Your task to perform on an android device: delete the emails in spam in the gmail app Image 0: 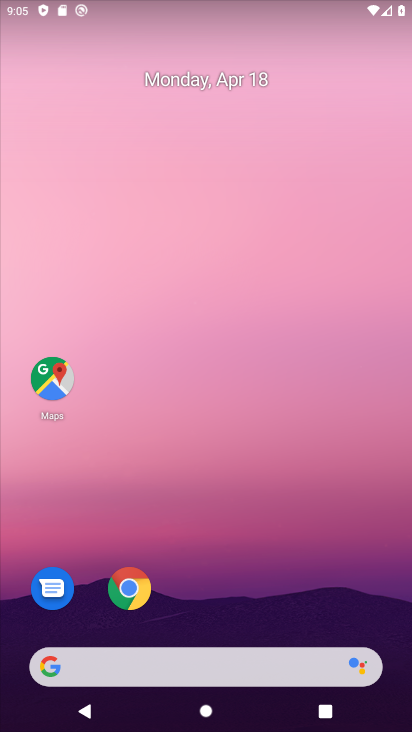
Step 0: drag from (276, 594) to (220, 61)
Your task to perform on an android device: delete the emails in spam in the gmail app Image 1: 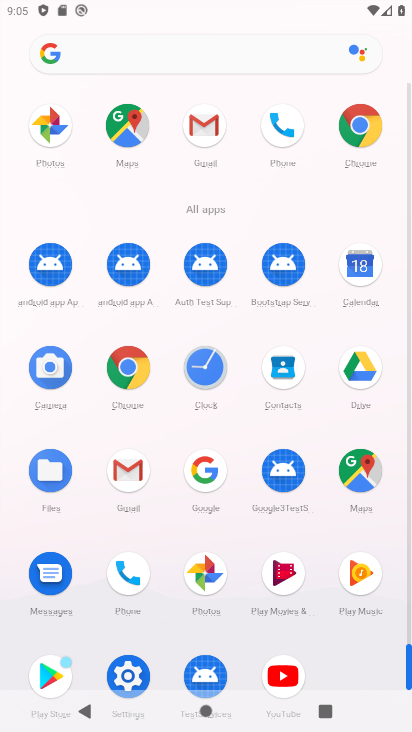
Step 1: click (125, 471)
Your task to perform on an android device: delete the emails in spam in the gmail app Image 2: 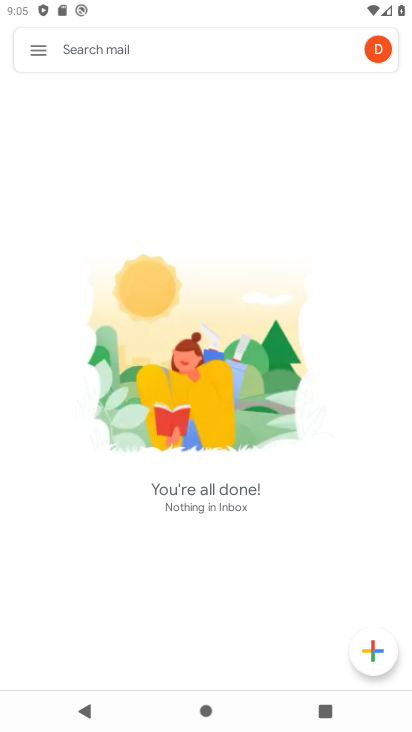
Step 2: click (36, 56)
Your task to perform on an android device: delete the emails in spam in the gmail app Image 3: 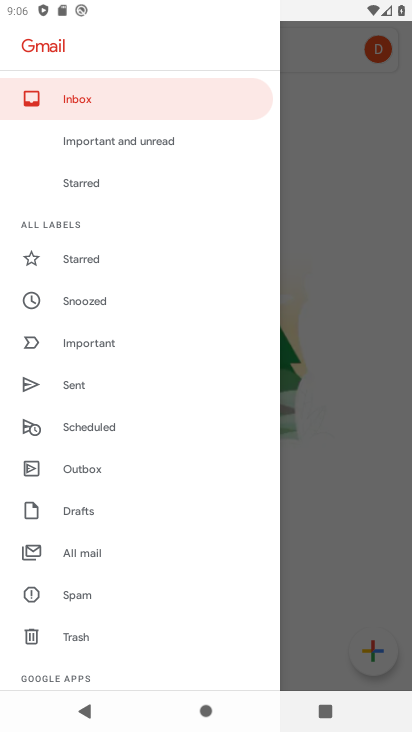
Step 3: click (73, 589)
Your task to perform on an android device: delete the emails in spam in the gmail app Image 4: 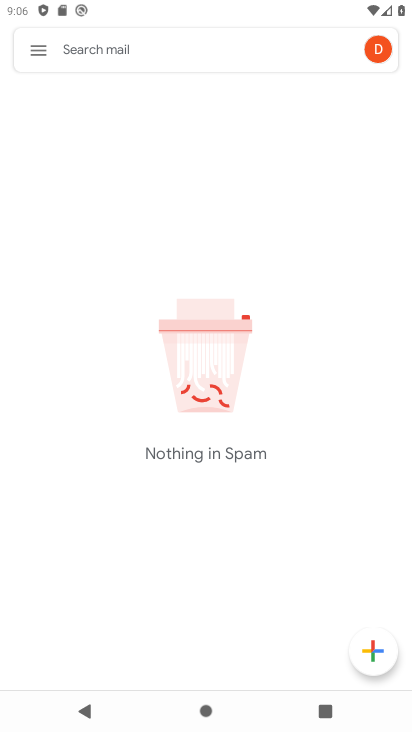
Step 4: task complete